Your task to perform on an android device: open app "Truecaller" (install if not already installed) Image 0: 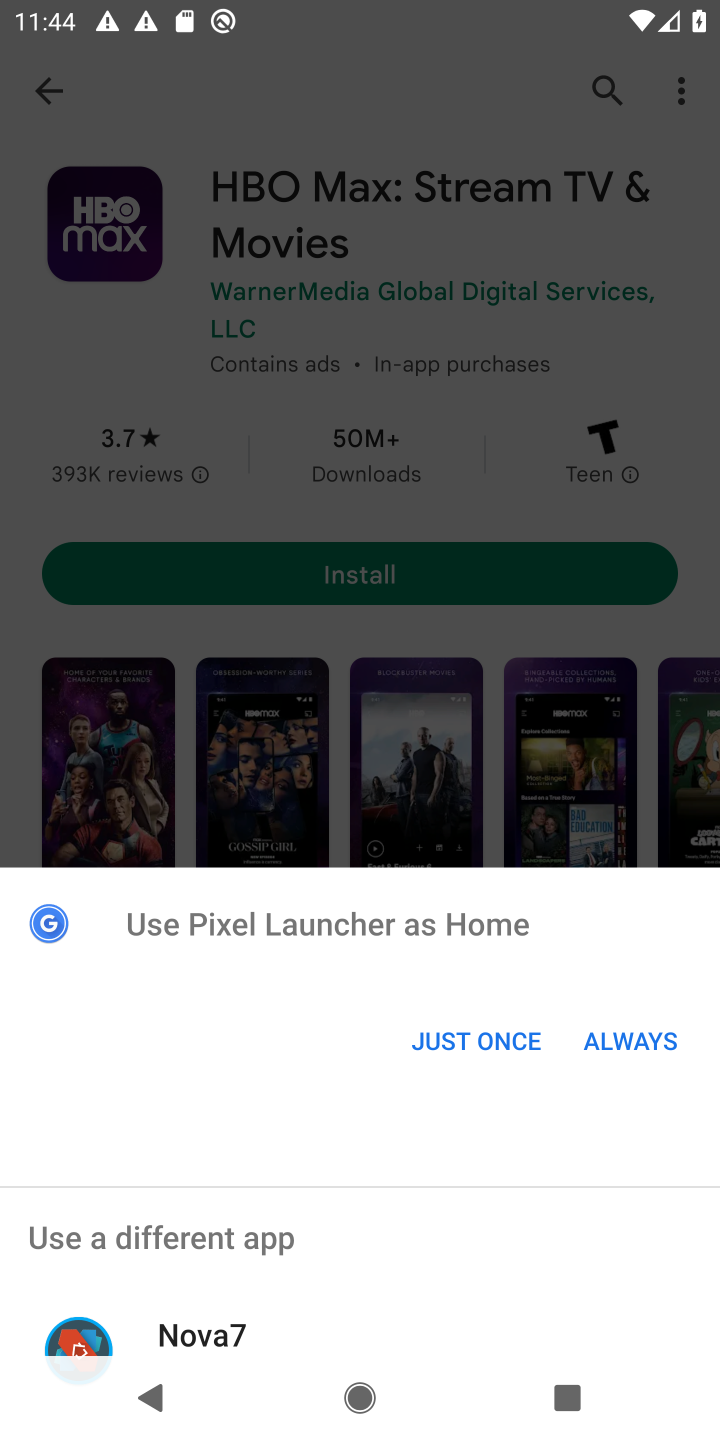
Step 0: click (628, 1050)
Your task to perform on an android device: open app "Truecaller" (install if not already installed) Image 1: 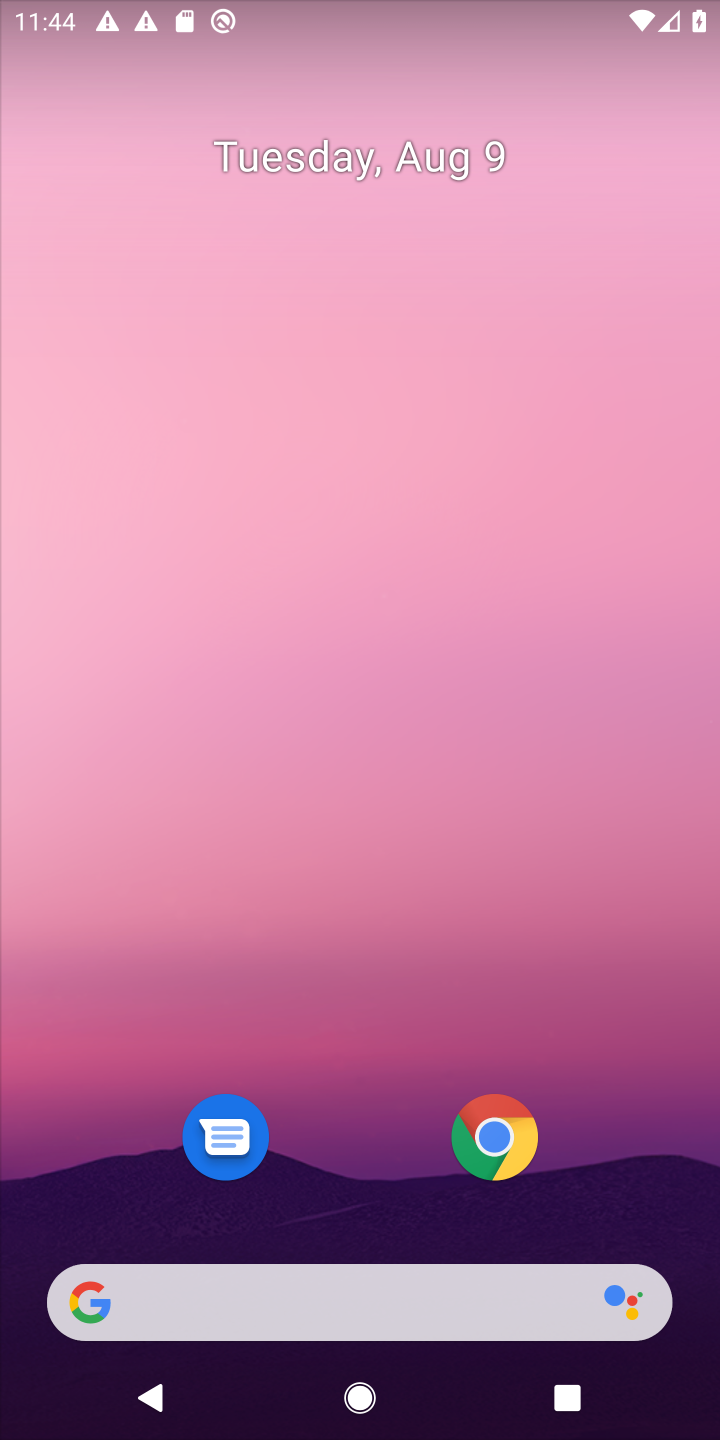
Step 1: press home button
Your task to perform on an android device: open app "Truecaller" (install if not already installed) Image 2: 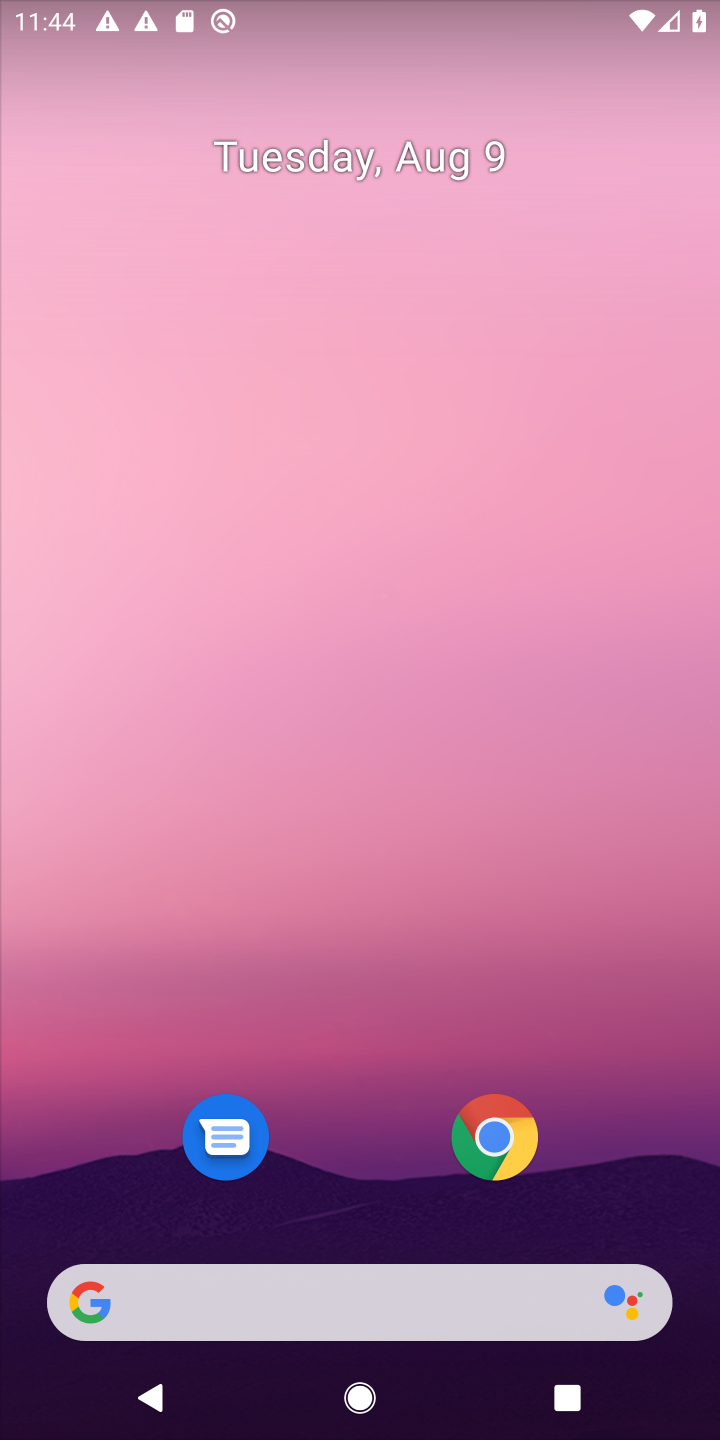
Step 2: click (354, 1205)
Your task to perform on an android device: open app "Truecaller" (install if not already installed) Image 3: 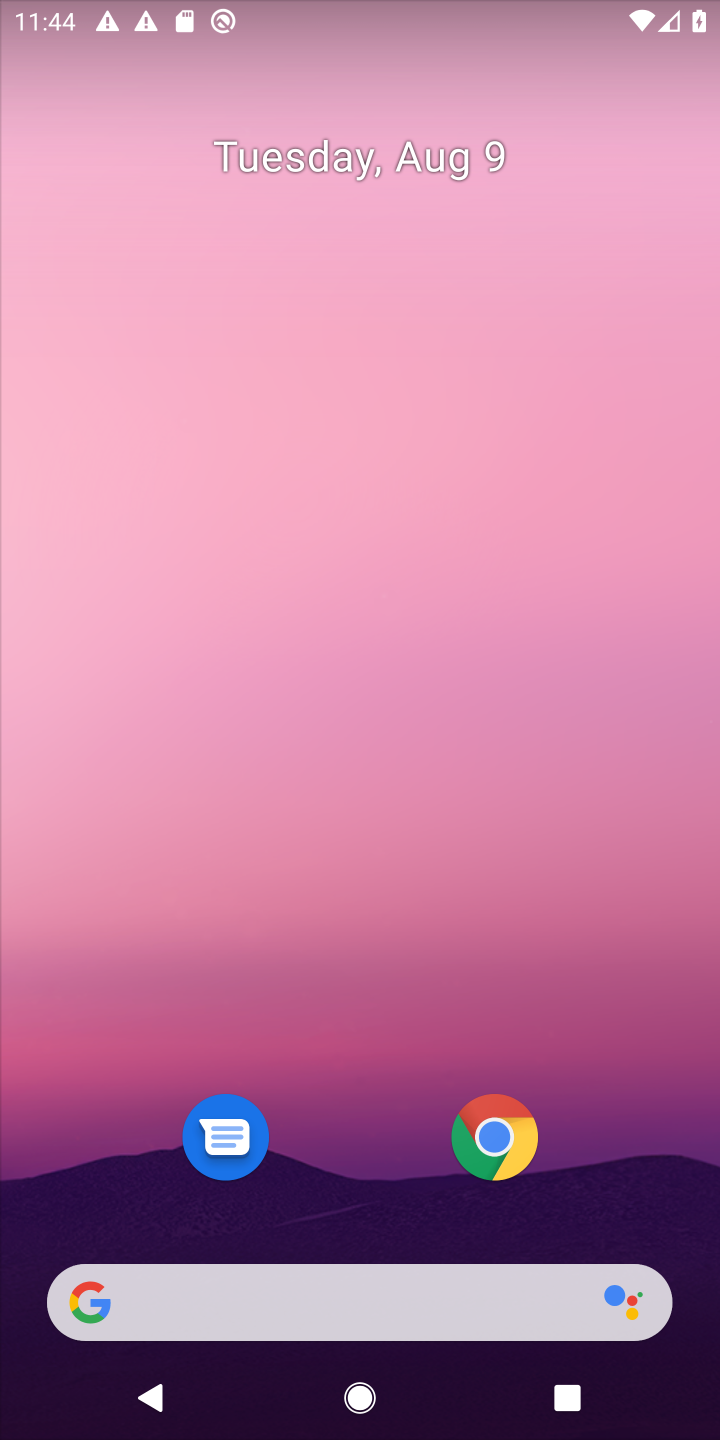
Step 3: drag from (348, 1199) to (438, 405)
Your task to perform on an android device: open app "Truecaller" (install if not already installed) Image 4: 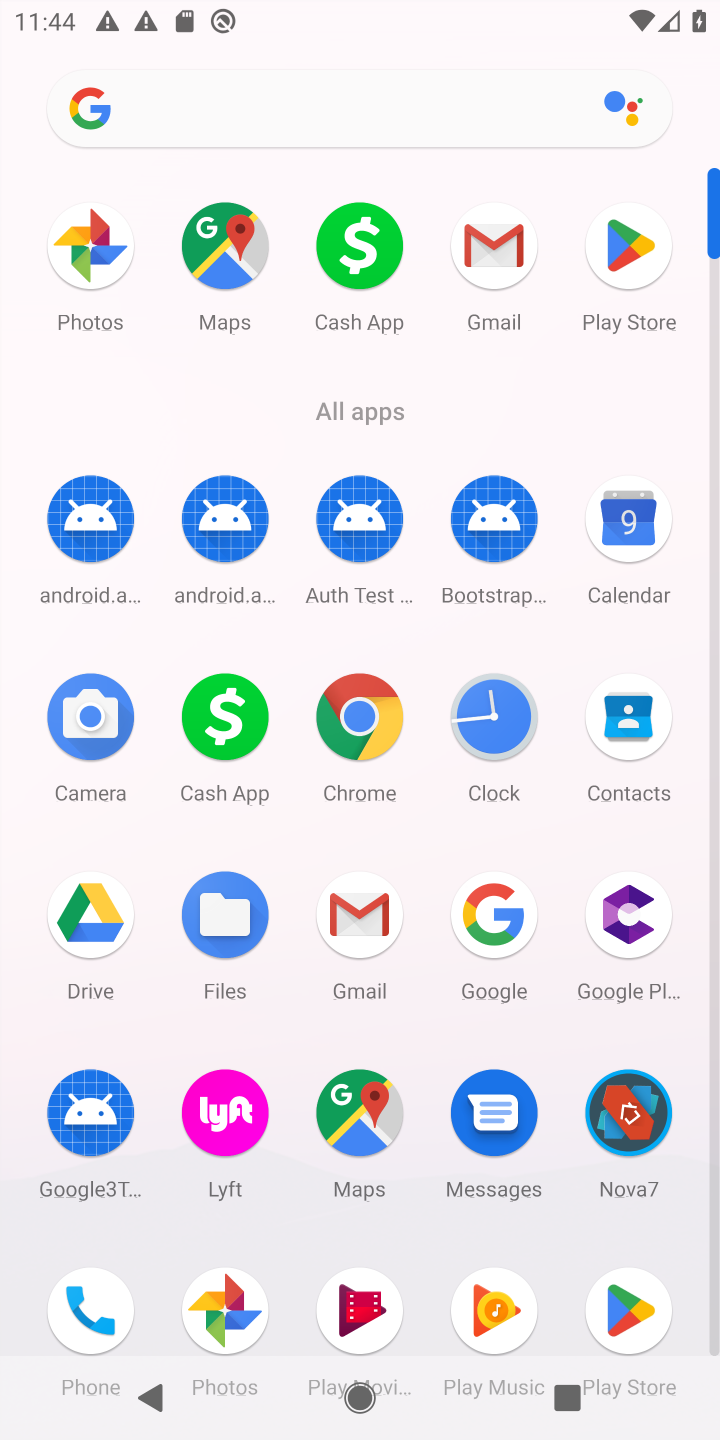
Step 4: click (632, 246)
Your task to perform on an android device: open app "Truecaller" (install if not already installed) Image 5: 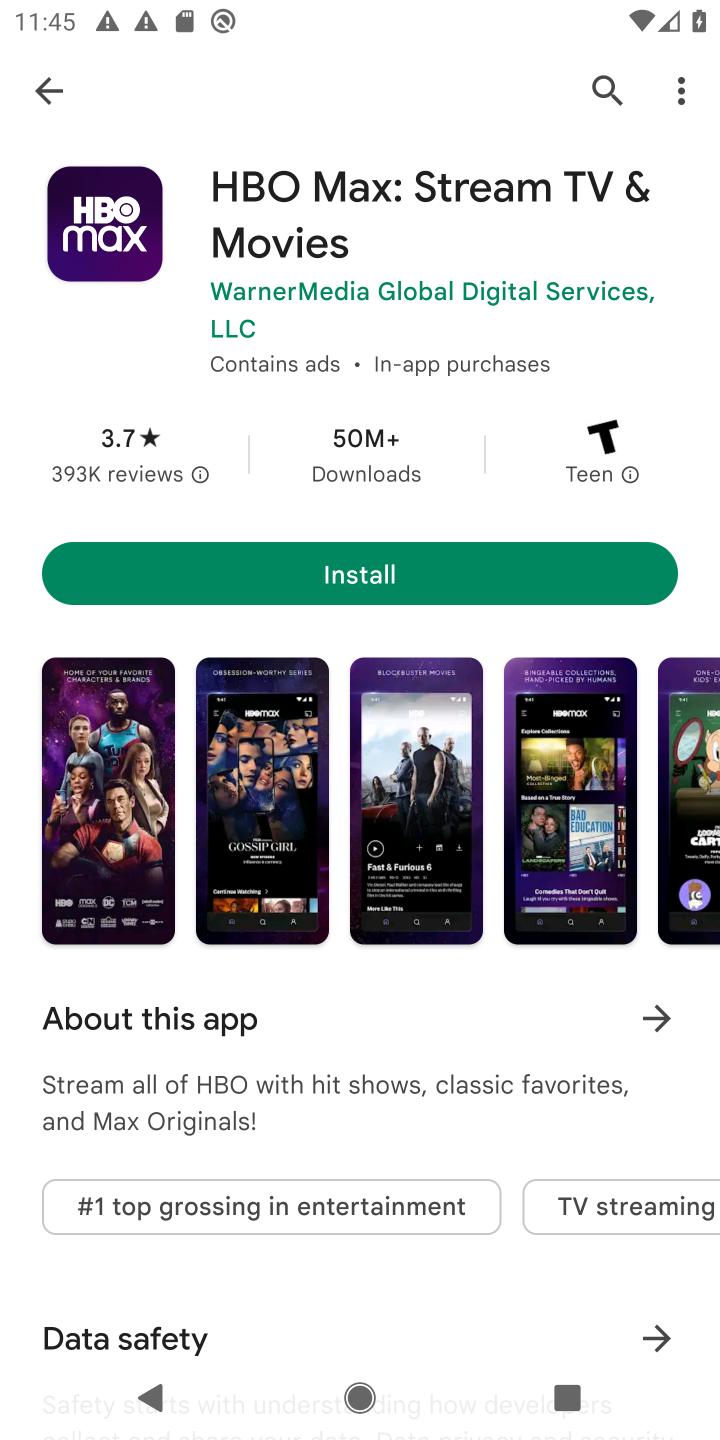
Step 5: click (600, 83)
Your task to perform on an android device: open app "Truecaller" (install if not already installed) Image 6: 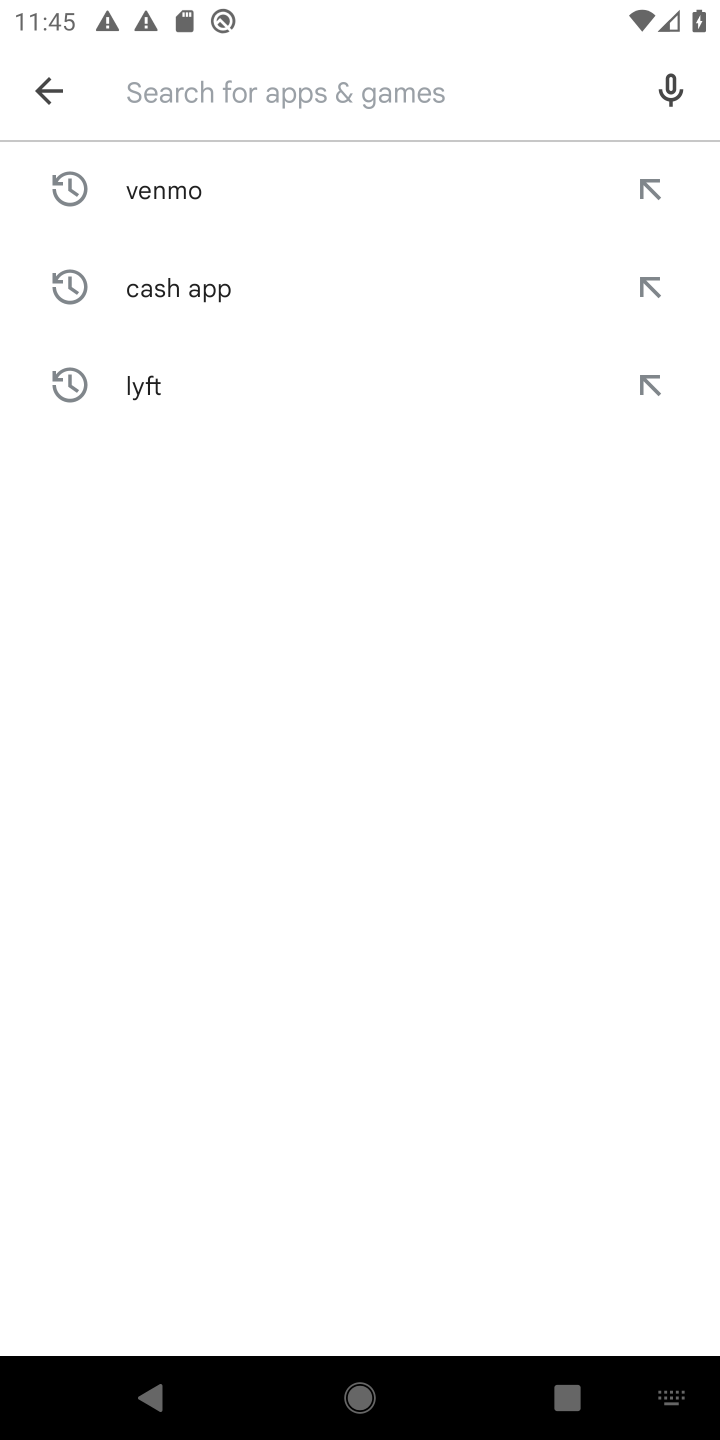
Step 6: type "Truecaller"
Your task to perform on an android device: open app "Truecaller" (install if not already installed) Image 7: 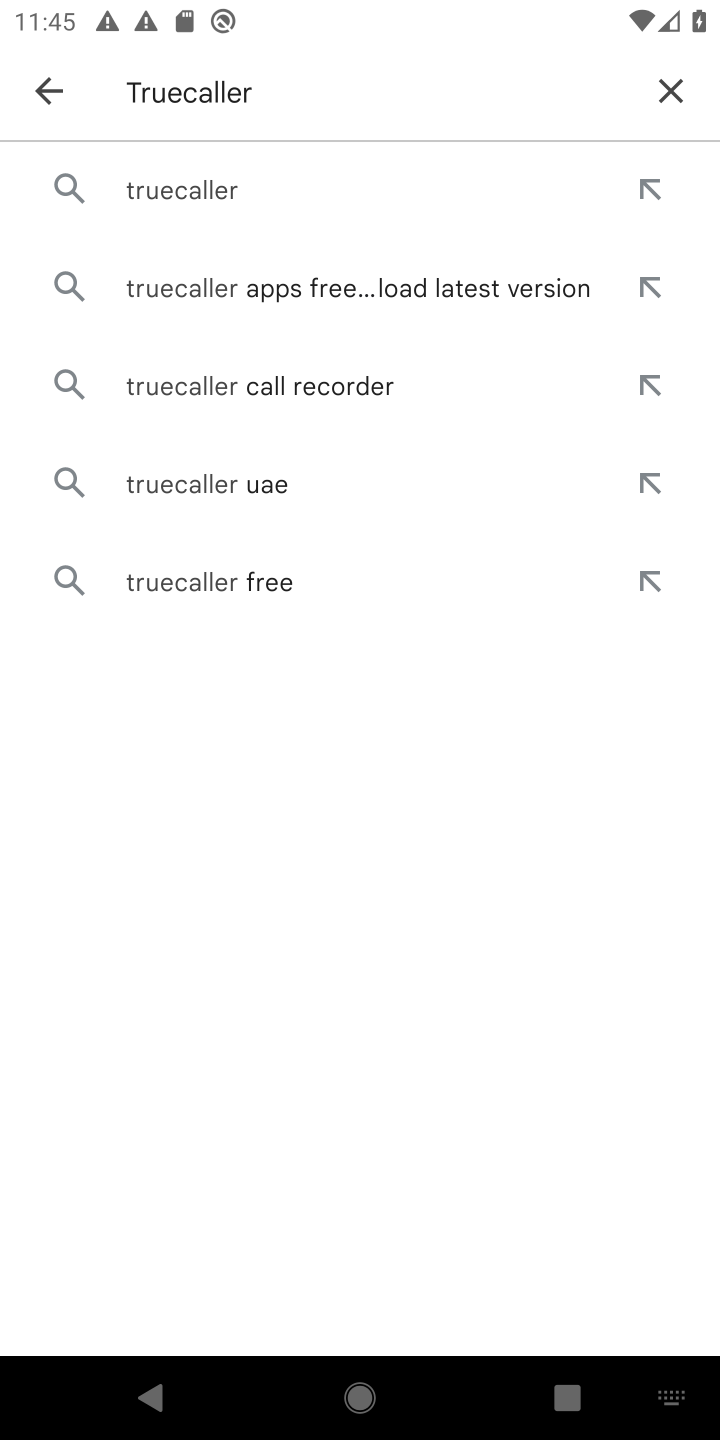
Step 7: click (167, 171)
Your task to perform on an android device: open app "Truecaller" (install if not already installed) Image 8: 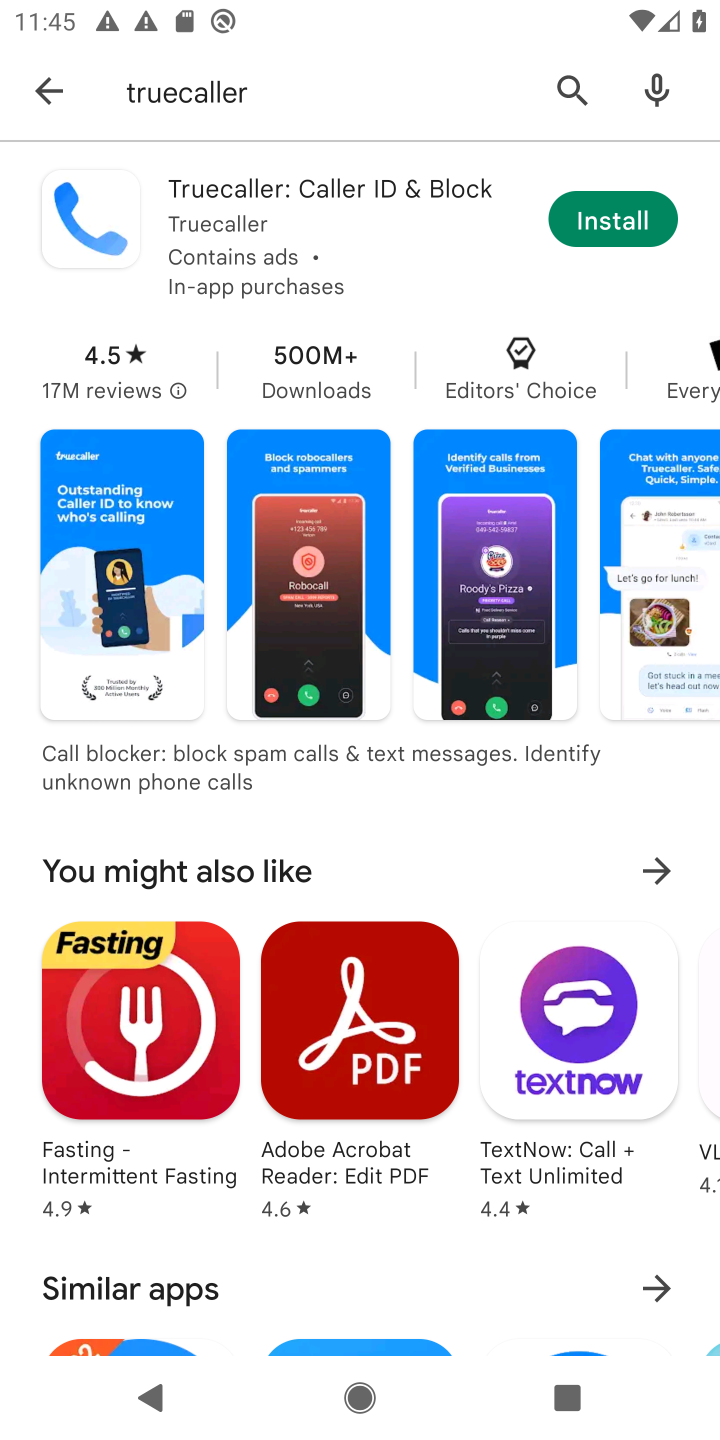
Step 8: click (620, 227)
Your task to perform on an android device: open app "Truecaller" (install if not already installed) Image 9: 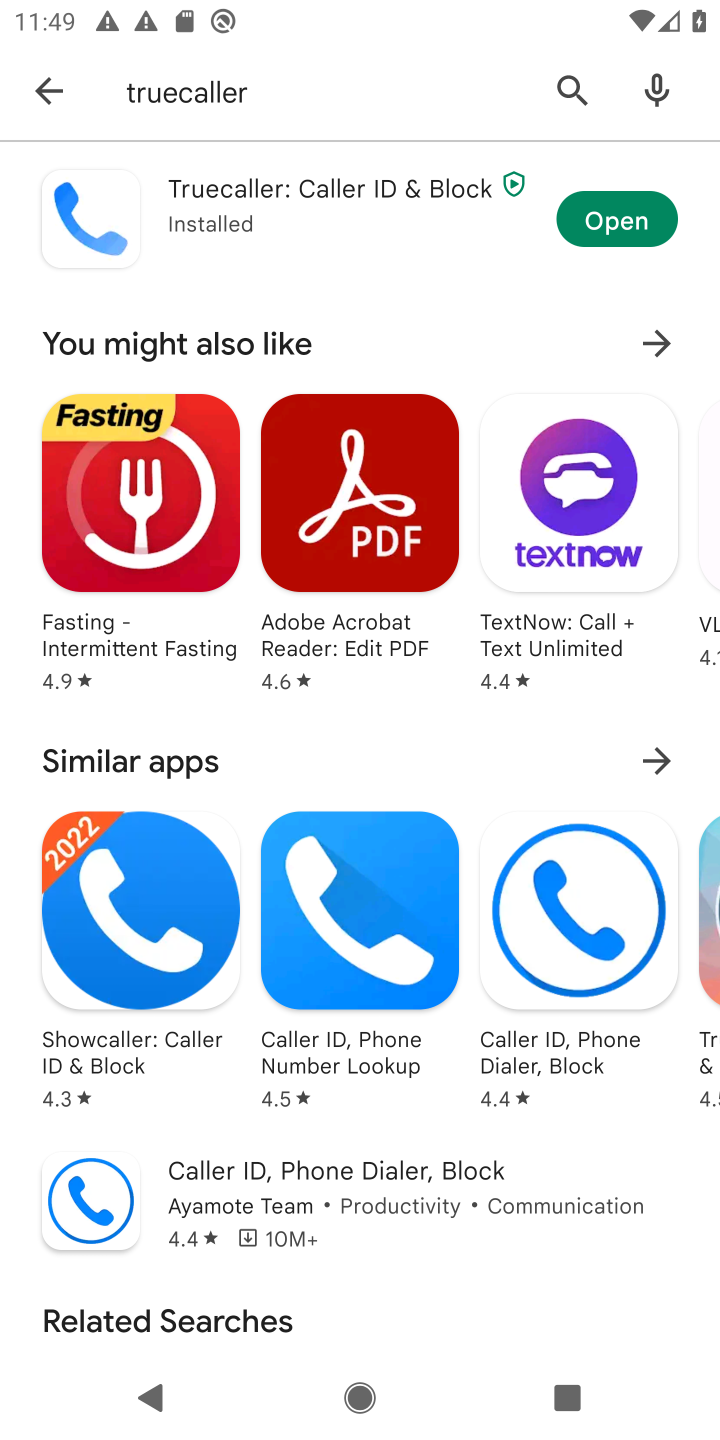
Step 9: click (613, 222)
Your task to perform on an android device: open app "Truecaller" (install if not already installed) Image 10: 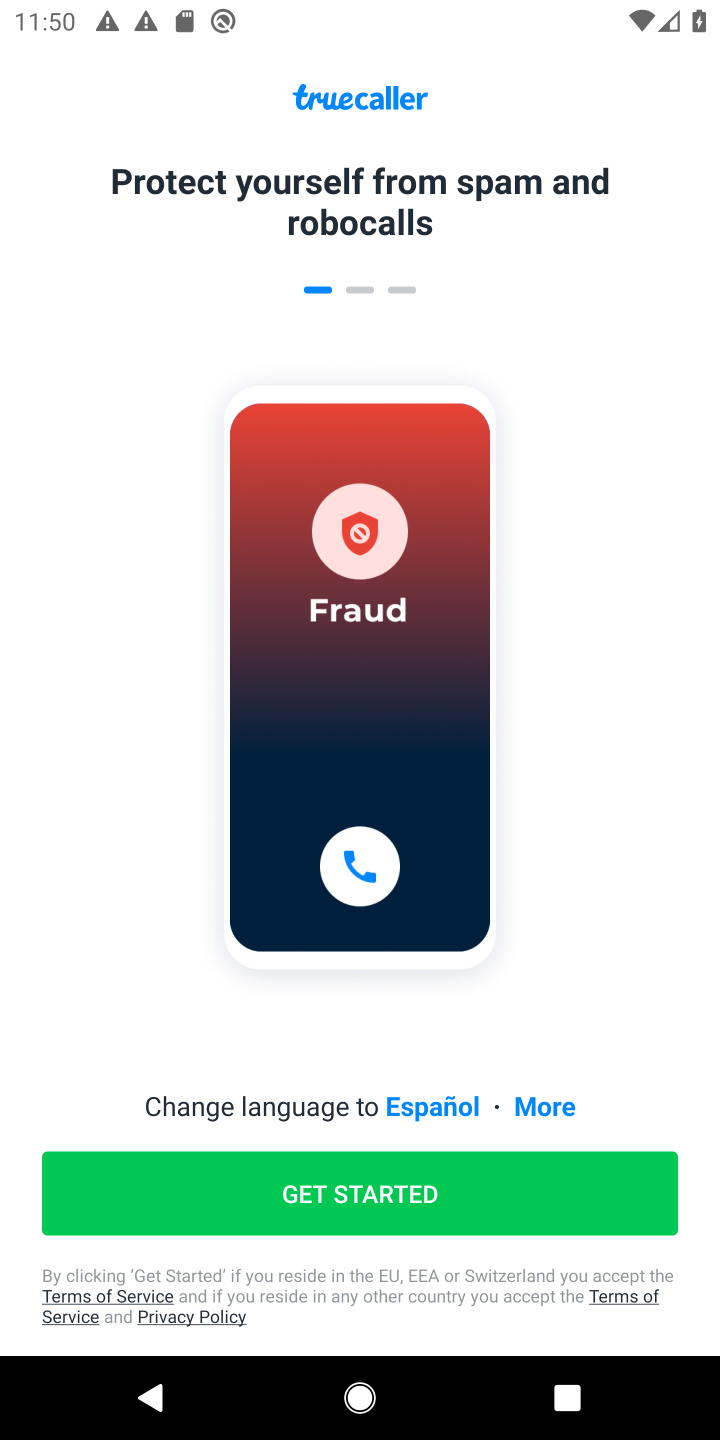
Step 10: click (366, 1205)
Your task to perform on an android device: open app "Truecaller" (install if not already installed) Image 11: 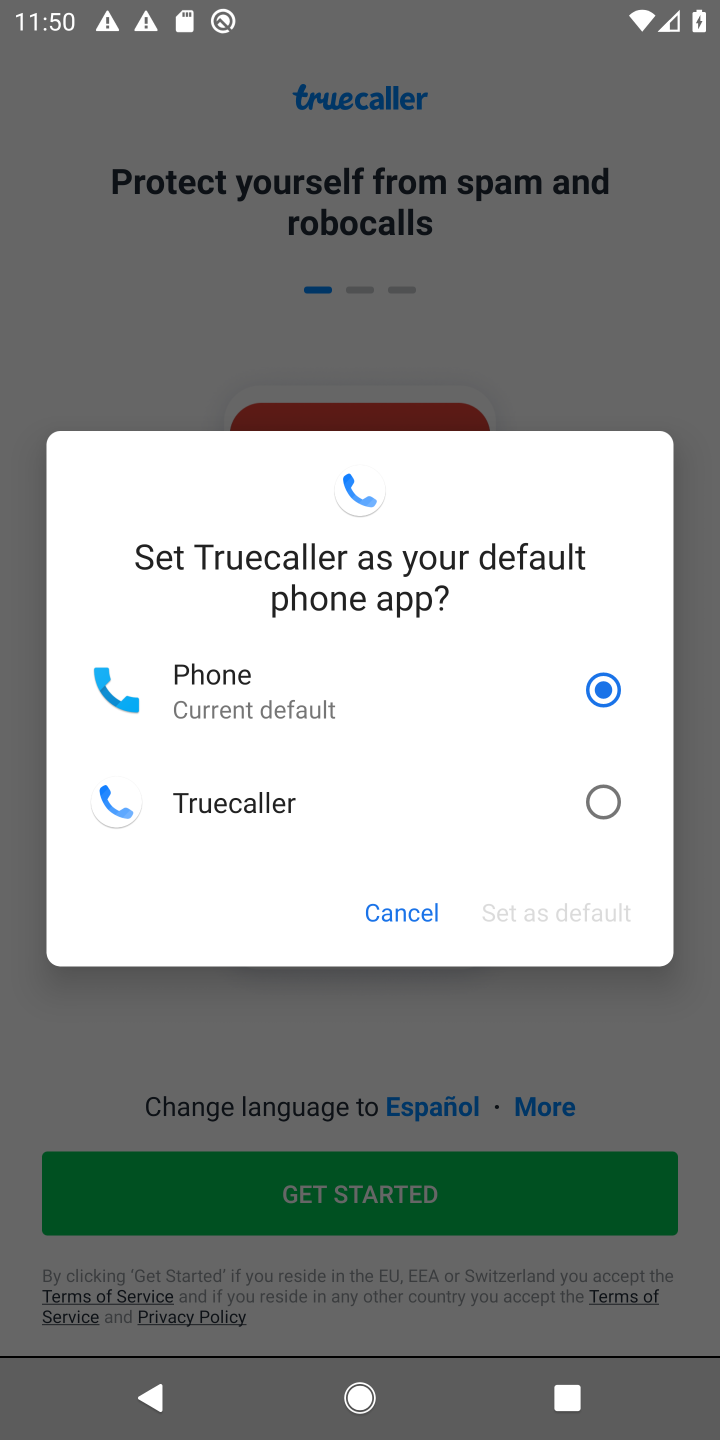
Step 11: click (612, 811)
Your task to perform on an android device: open app "Truecaller" (install if not already installed) Image 12: 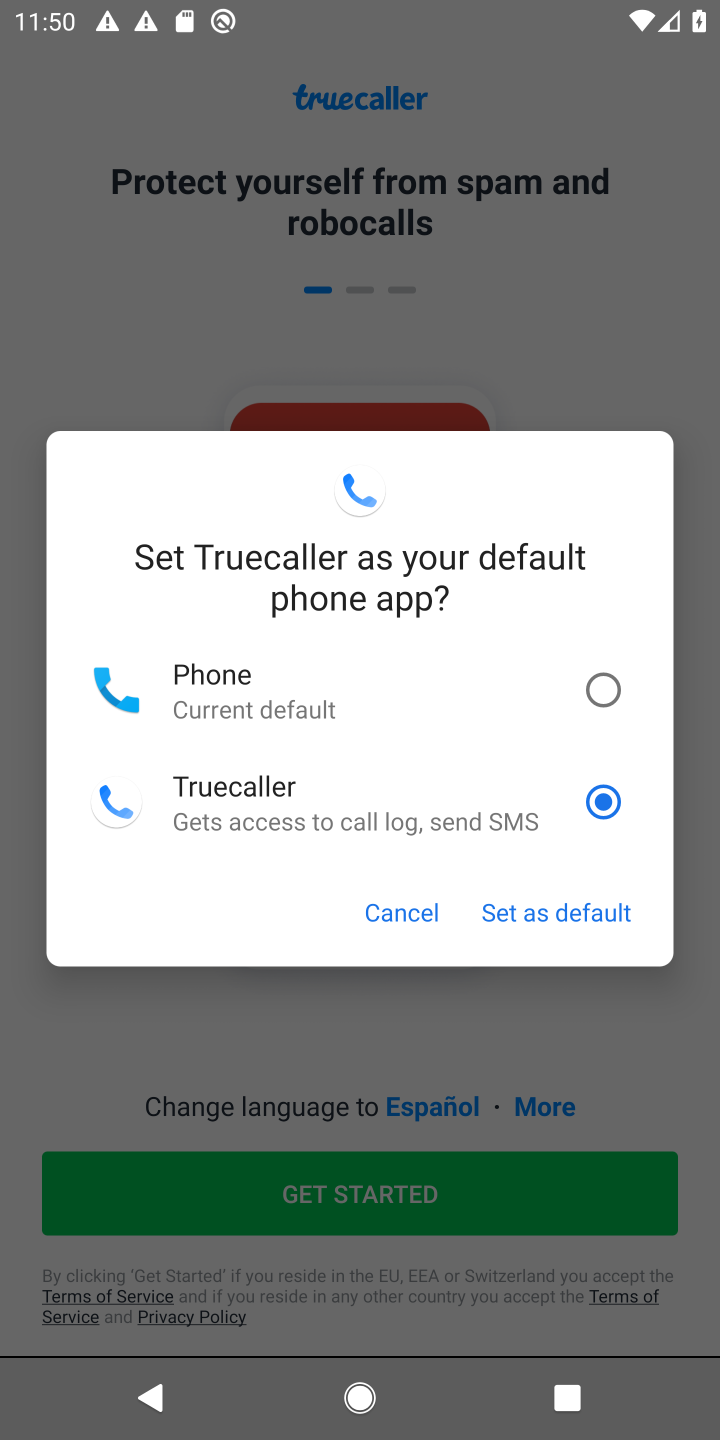
Step 12: click (569, 905)
Your task to perform on an android device: open app "Truecaller" (install if not already installed) Image 13: 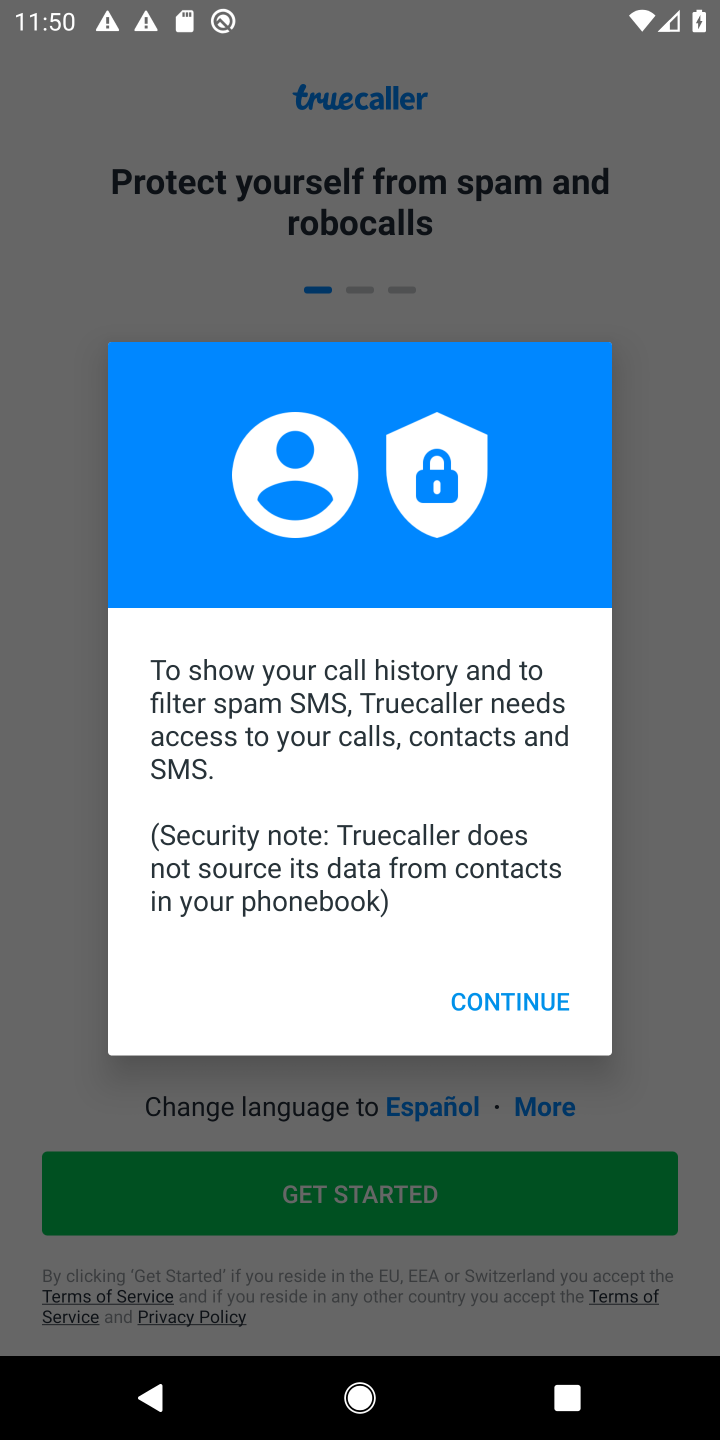
Step 13: click (497, 1009)
Your task to perform on an android device: open app "Truecaller" (install if not already installed) Image 14: 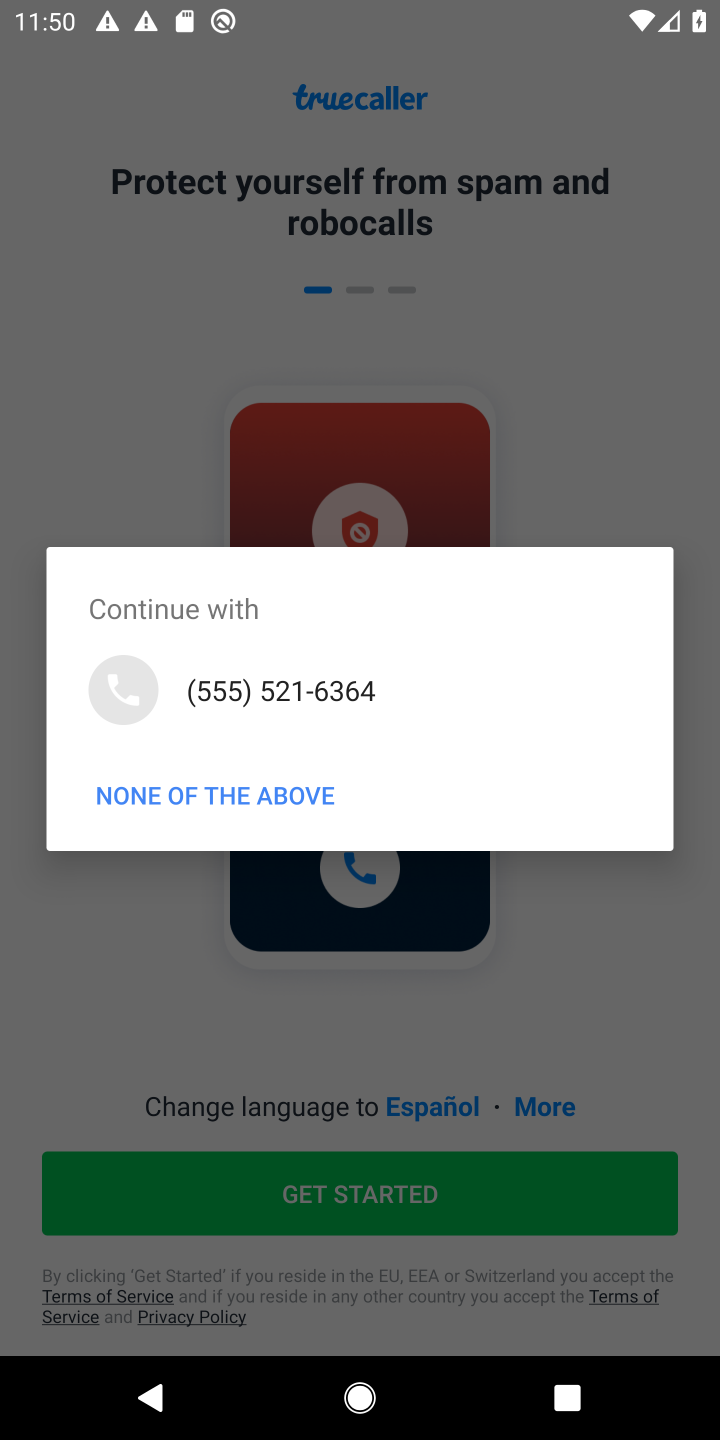
Step 14: click (380, 690)
Your task to perform on an android device: open app "Truecaller" (install if not already installed) Image 15: 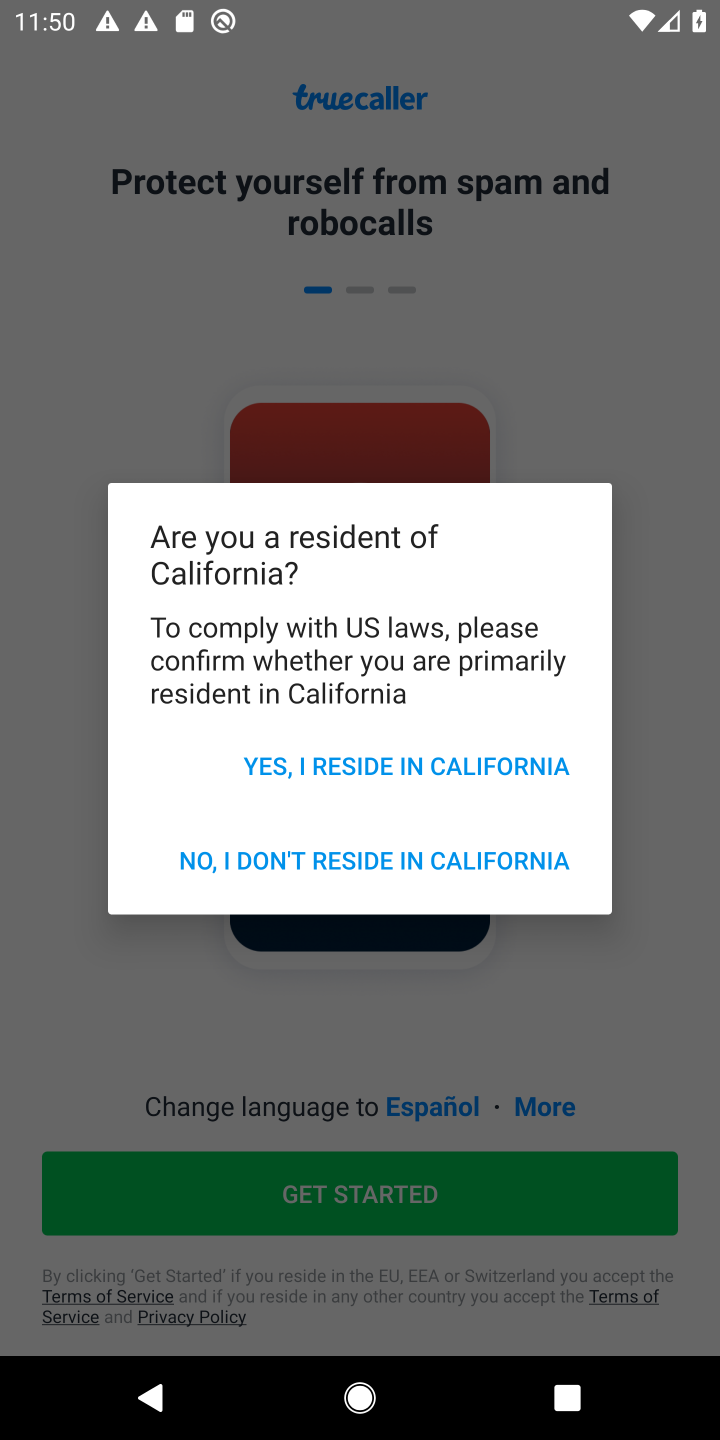
Step 15: click (386, 774)
Your task to perform on an android device: open app "Truecaller" (install if not already installed) Image 16: 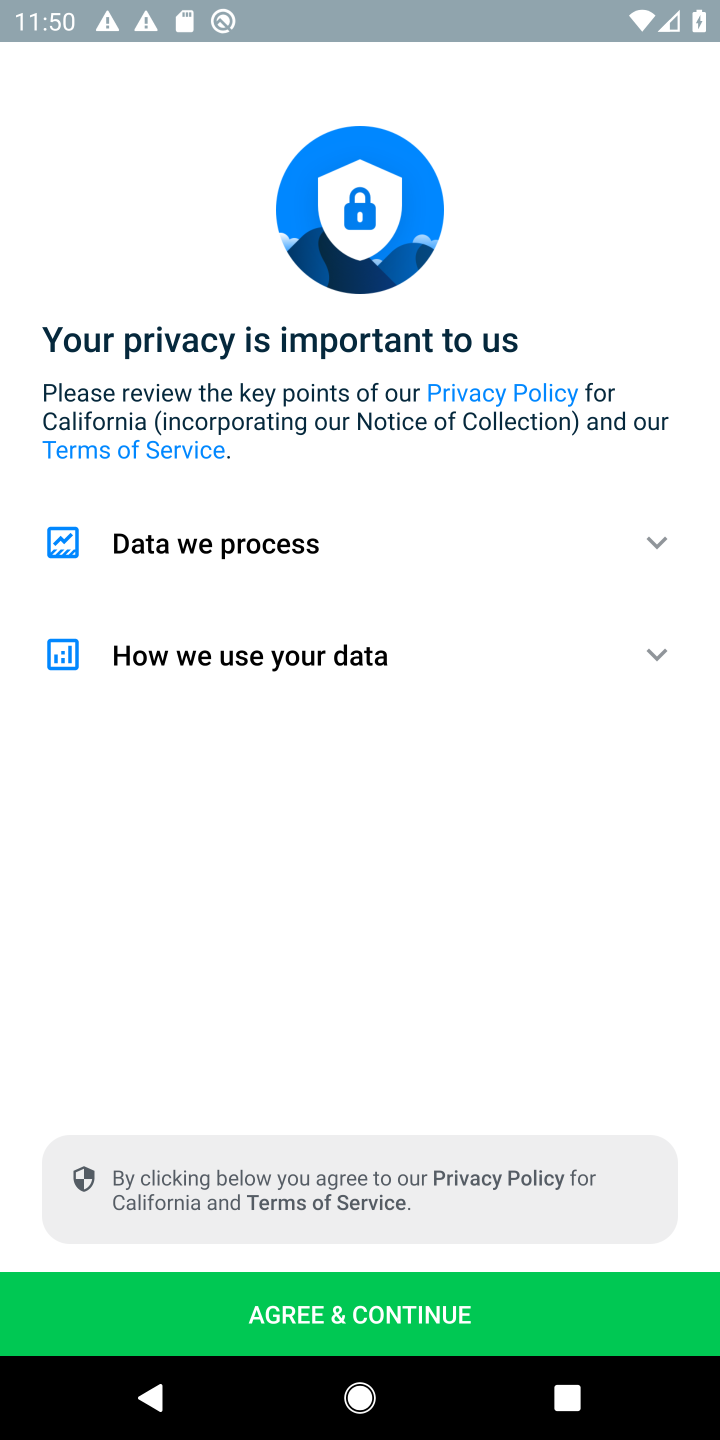
Step 16: click (459, 1319)
Your task to perform on an android device: open app "Truecaller" (install if not already installed) Image 17: 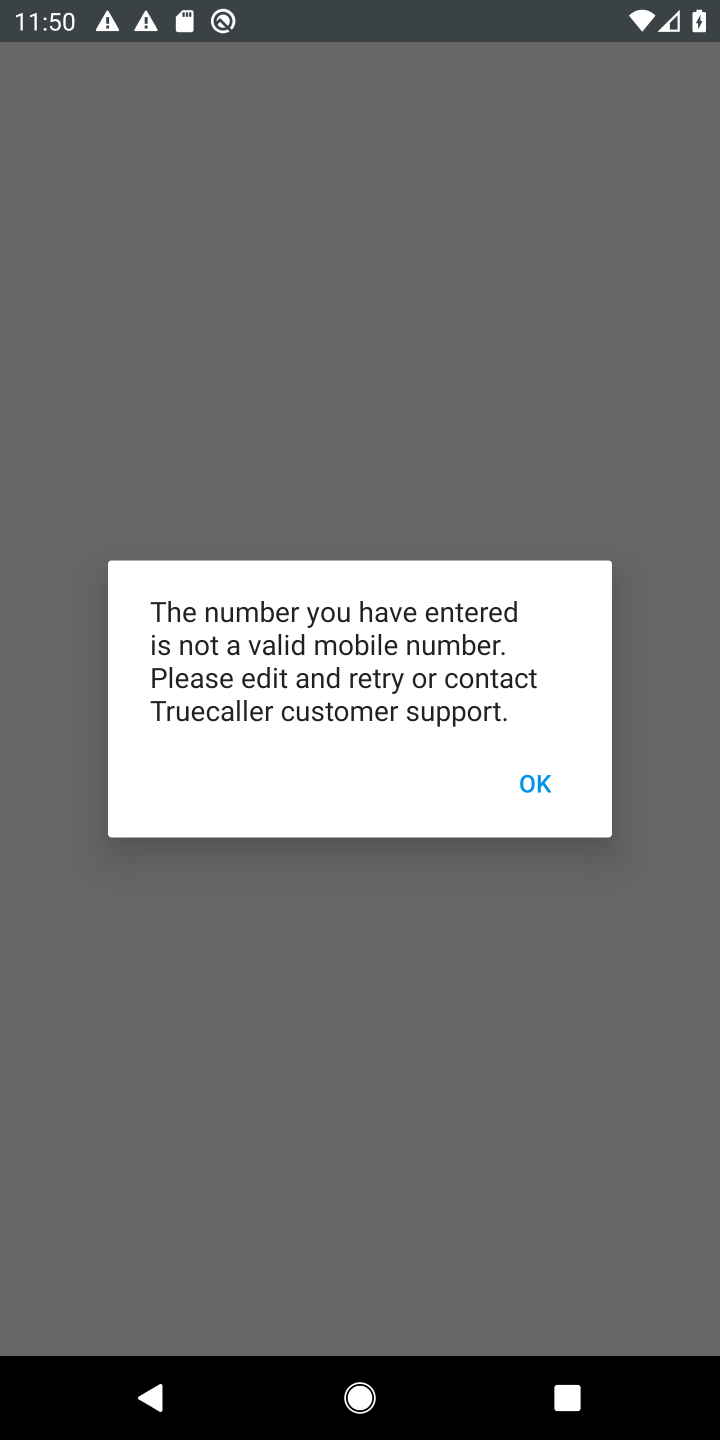
Step 17: click (543, 781)
Your task to perform on an android device: open app "Truecaller" (install if not already installed) Image 18: 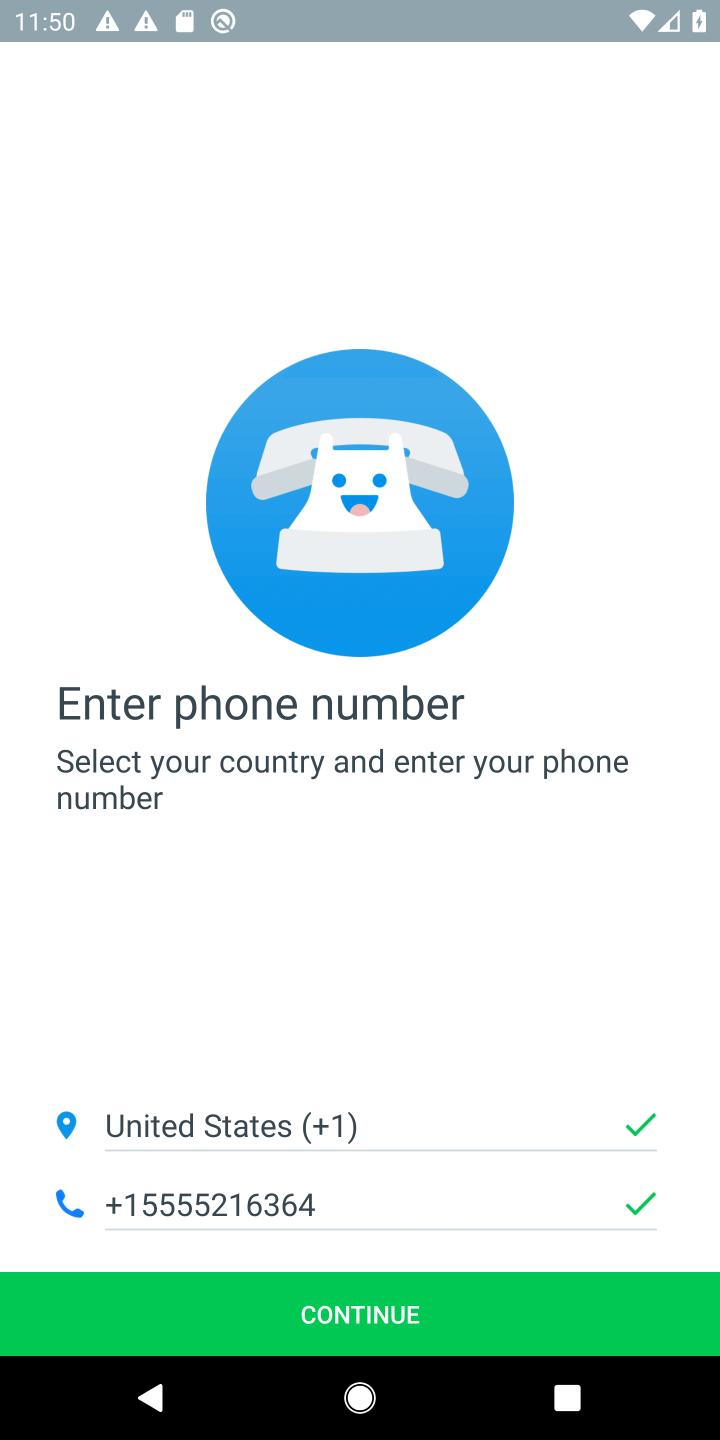
Step 18: click (448, 1329)
Your task to perform on an android device: open app "Truecaller" (install if not already installed) Image 19: 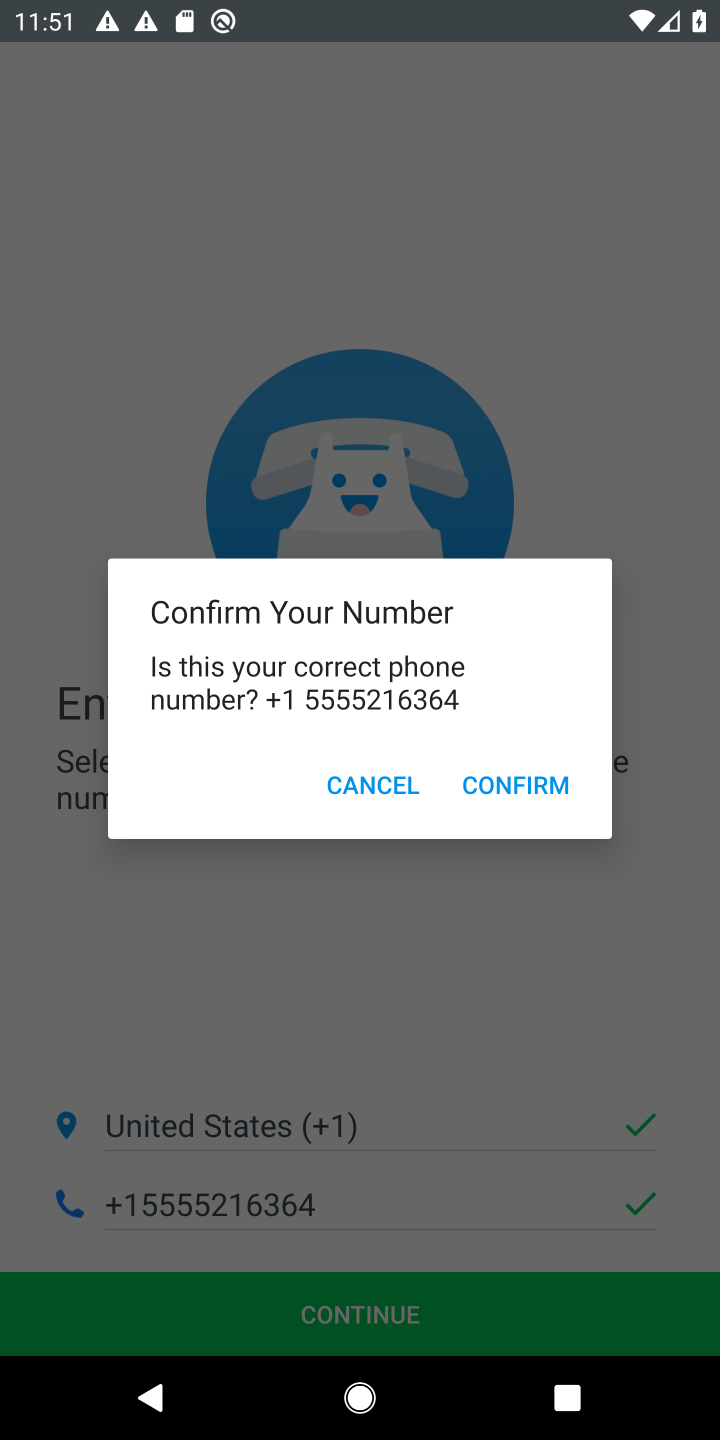
Step 19: click (530, 801)
Your task to perform on an android device: open app "Truecaller" (install if not already installed) Image 20: 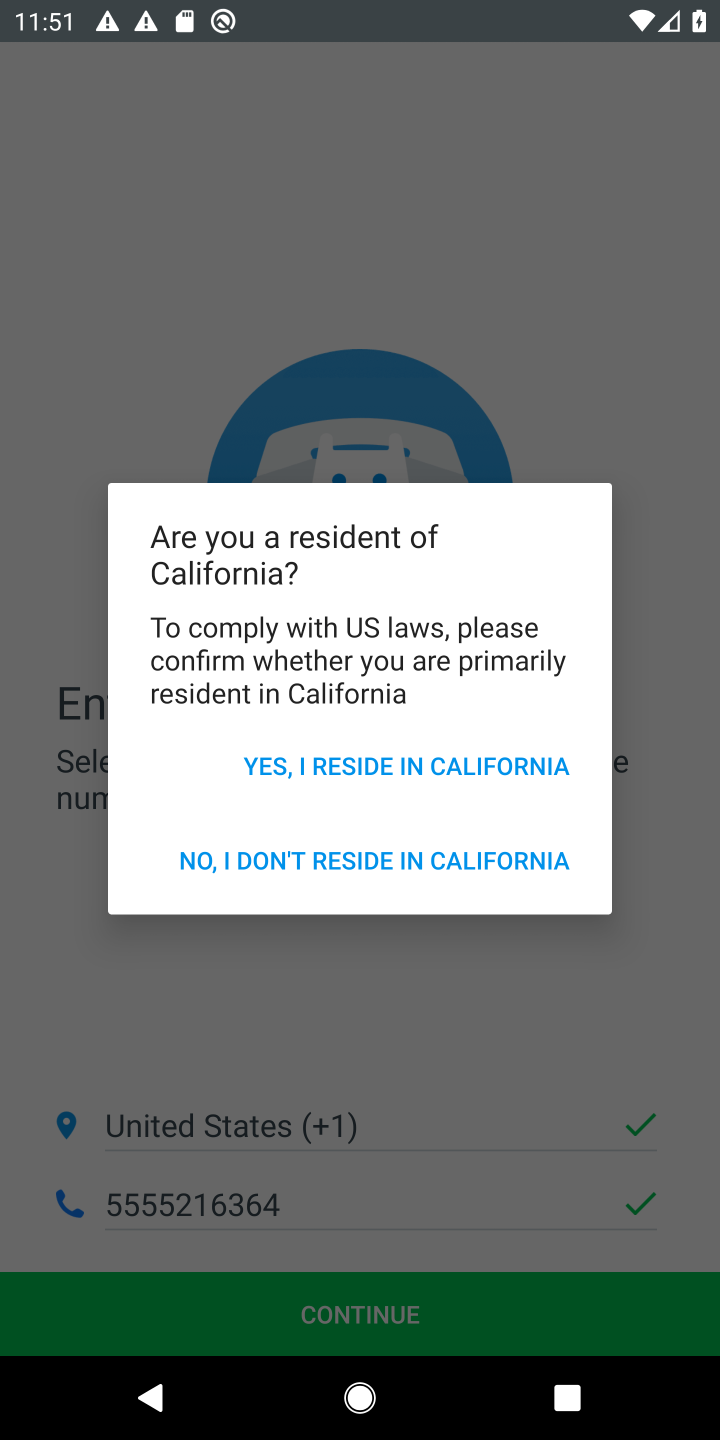
Step 20: click (502, 771)
Your task to perform on an android device: open app "Truecaller" (install if not already installed) Image 21: 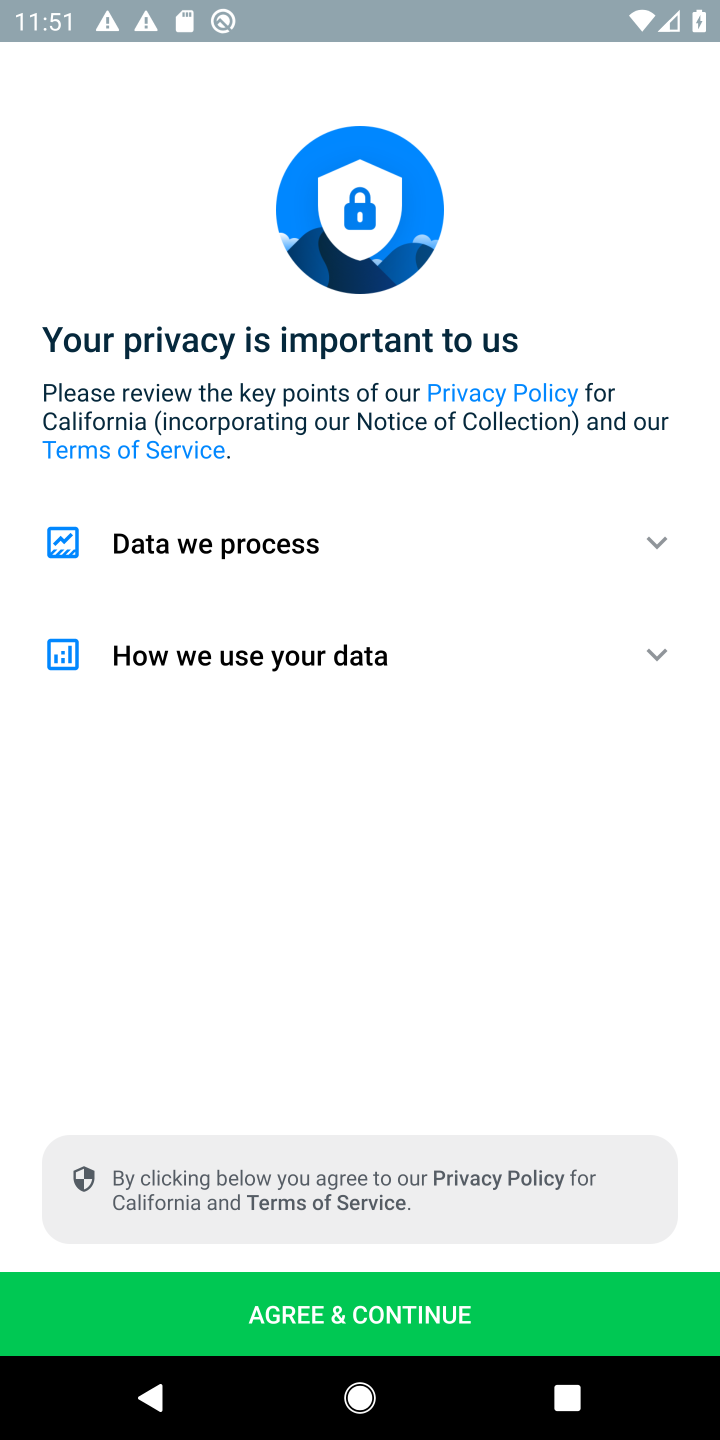
Step 21: task complete